Your task to perform on an android device: set the stopwatch Image 0: 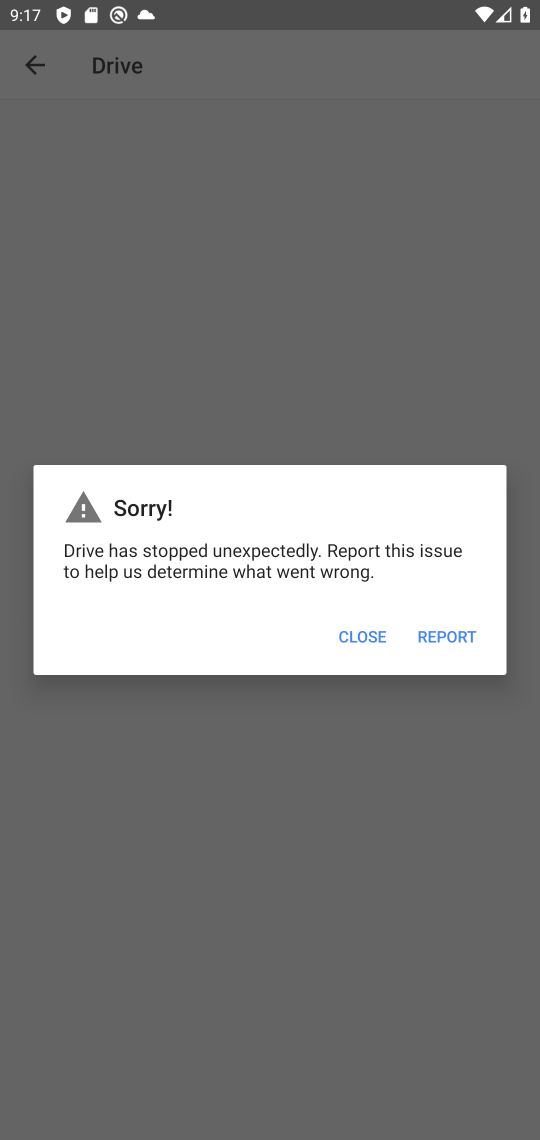
Step 0: press home button
Your task to perform on an android device: set the stopwatch Image 1: 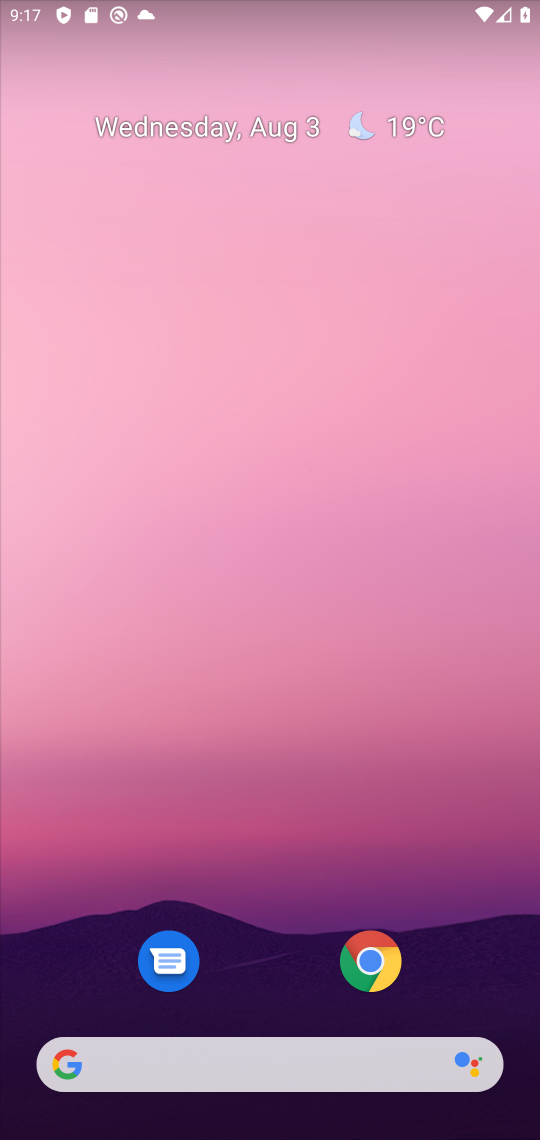
Step 1: drag from (251, 1009) to (496, 8)
Your task to perform on an android device: set the stopwatch Image 2: 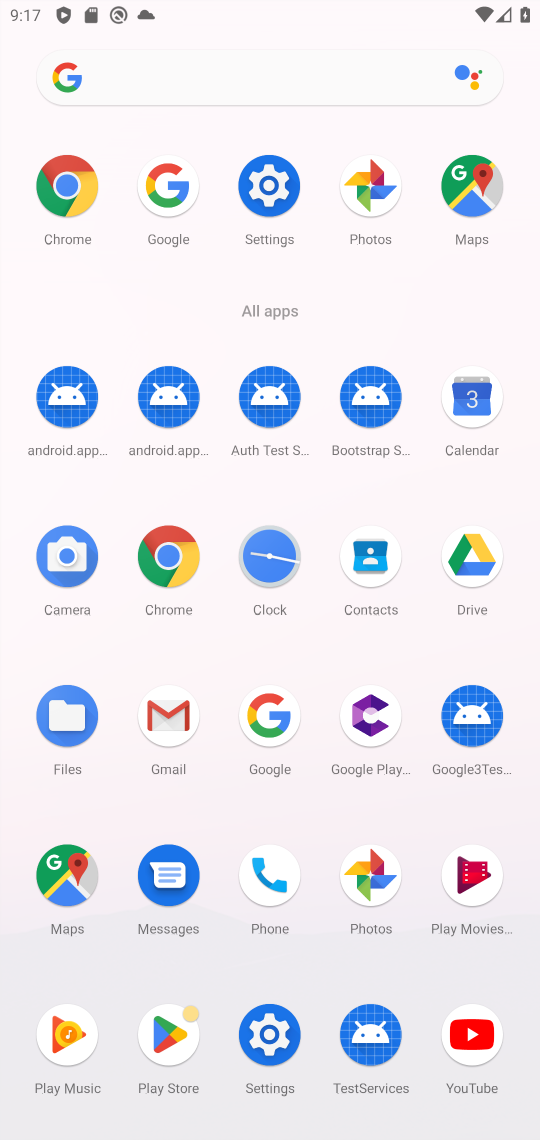
Step 2: click (260, 569)
Your task to perform on an android device: set the stopwatch Image 3: 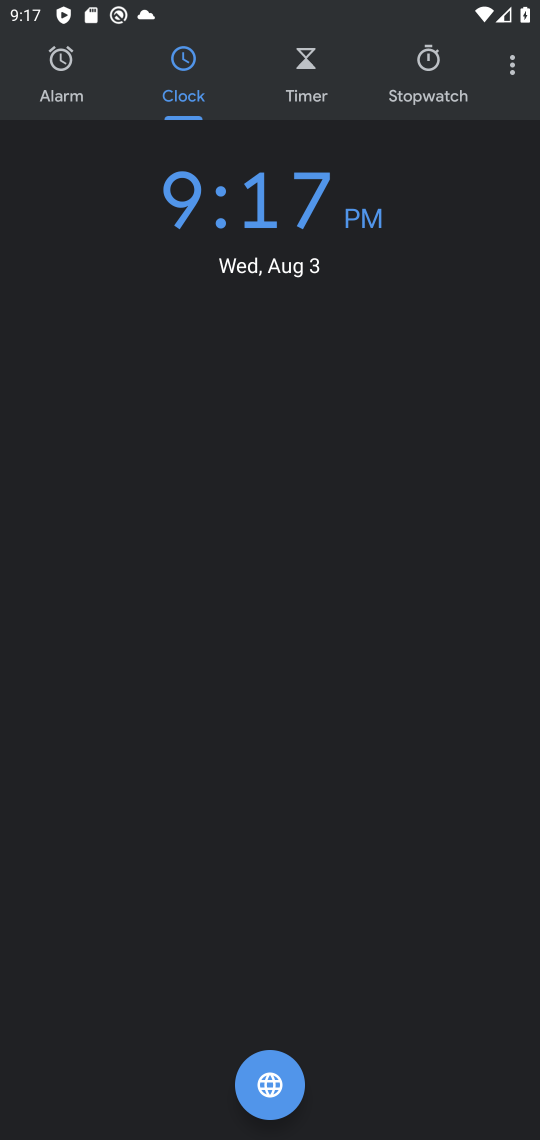
Step 3: click (390, 66)
Your task to perform on an android device: set the stopwatch Image 4: 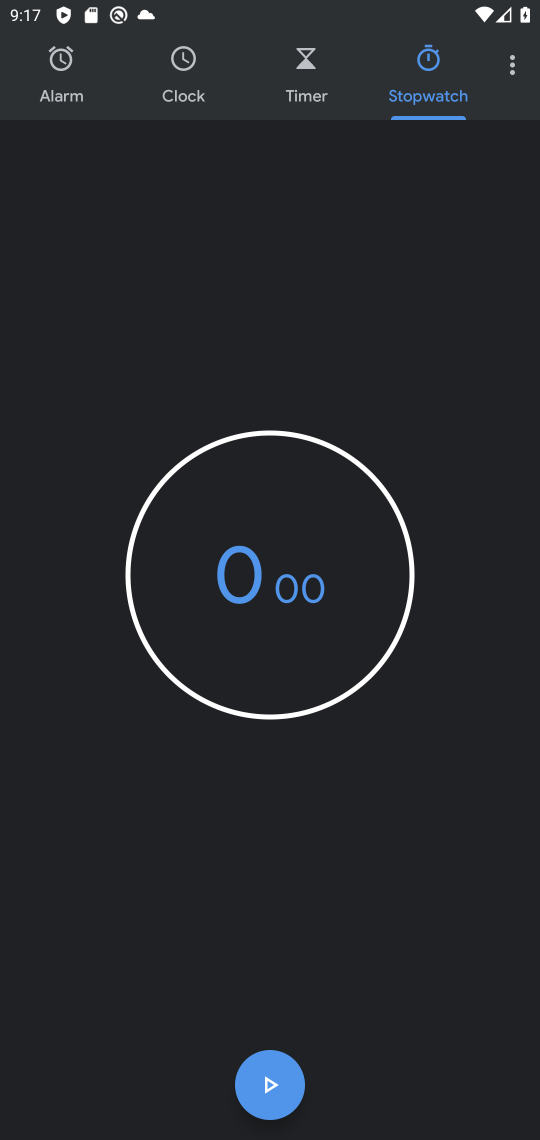
Step 4: task complete